Your task to perform on an android device: Is it going to rain today? Image 0: 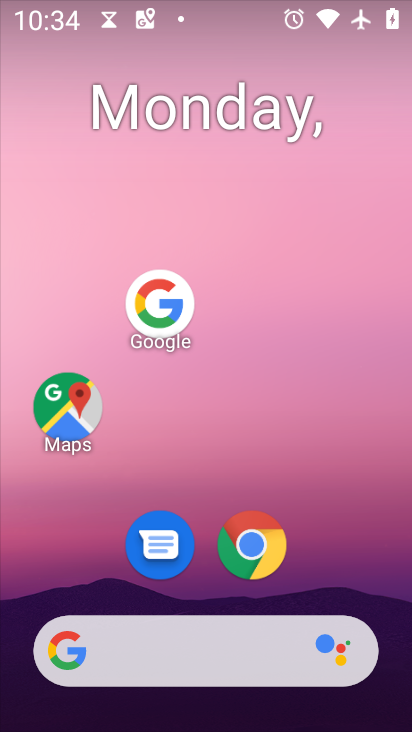
Step 0: press home button
Your task to perform on an android device: Is it going to rain today? Image 1: 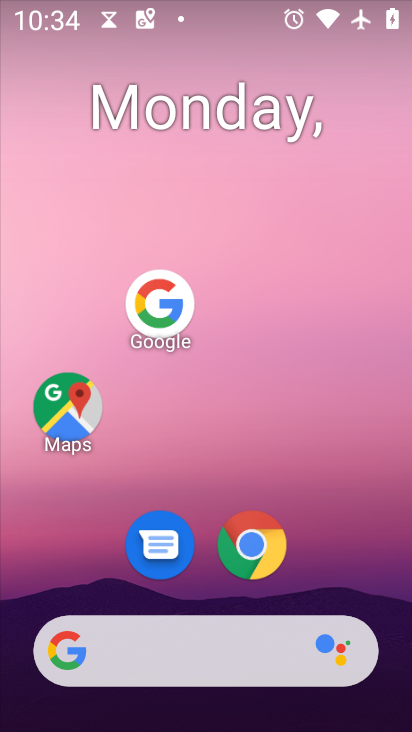
Step 1: click (75, 655)
Your task to perform on an android device: Is it going to rain today? Image 2: 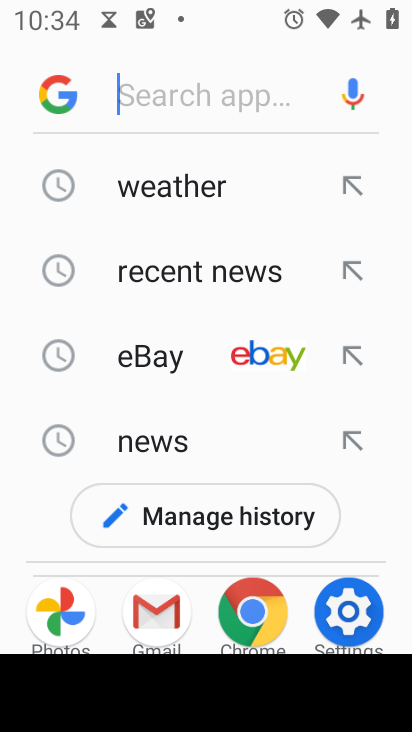
Step 2: click (199, 183)
Your task to perform on an android device: Is it going to rain today? Image 3: 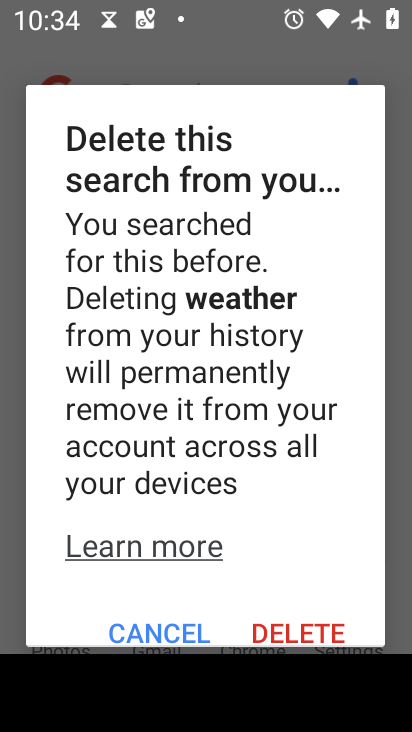
Step 3: click (183, 628)
Your task to perform on an android device: Is it going to rain today? Image 4: 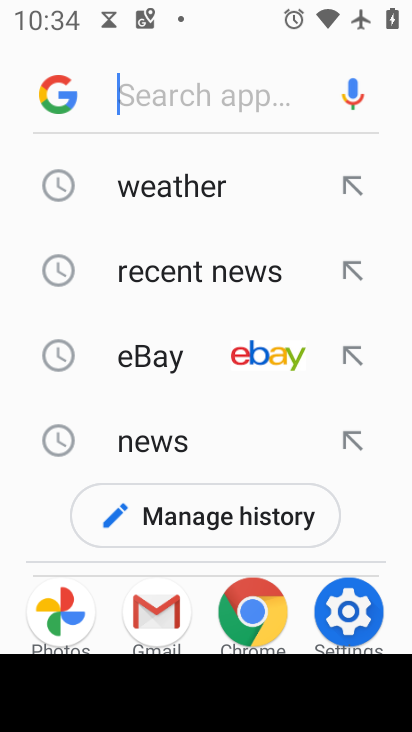
Step 4: click (188, 193)
Your task to perform on an android device: Is it going to rain today? Image 5: 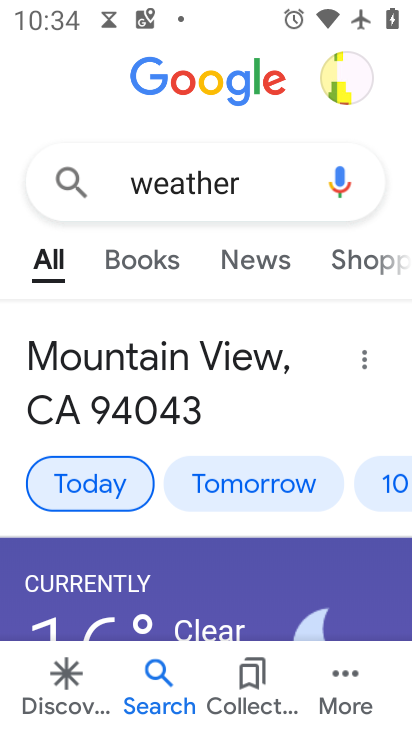
Step 5: task complete